Your task to perform on an android device: open app "Reddit" (install if not already installed) Image 0: 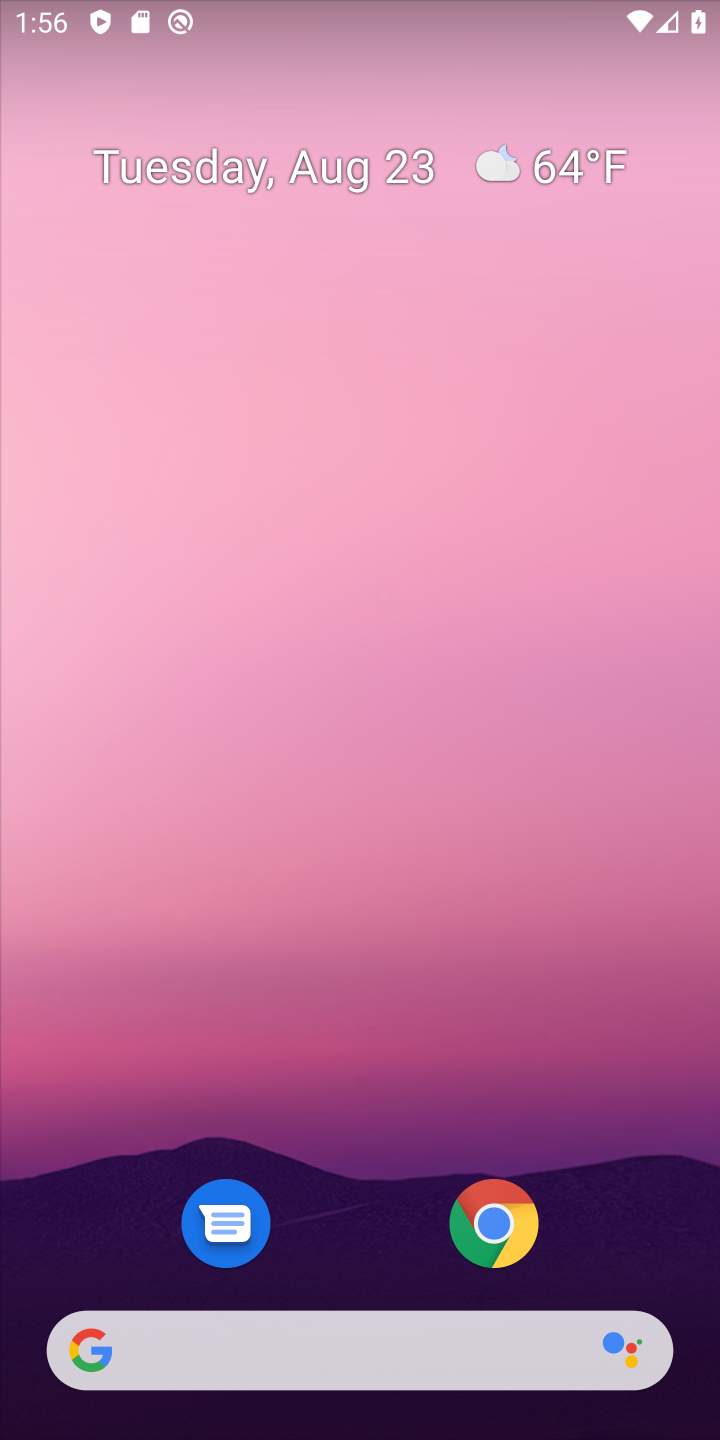
Step 0: drag from (383, 1268) to (469, 162)
Your task to perform on an android device: open app "Reddit" (install if not already installed) Image 1: 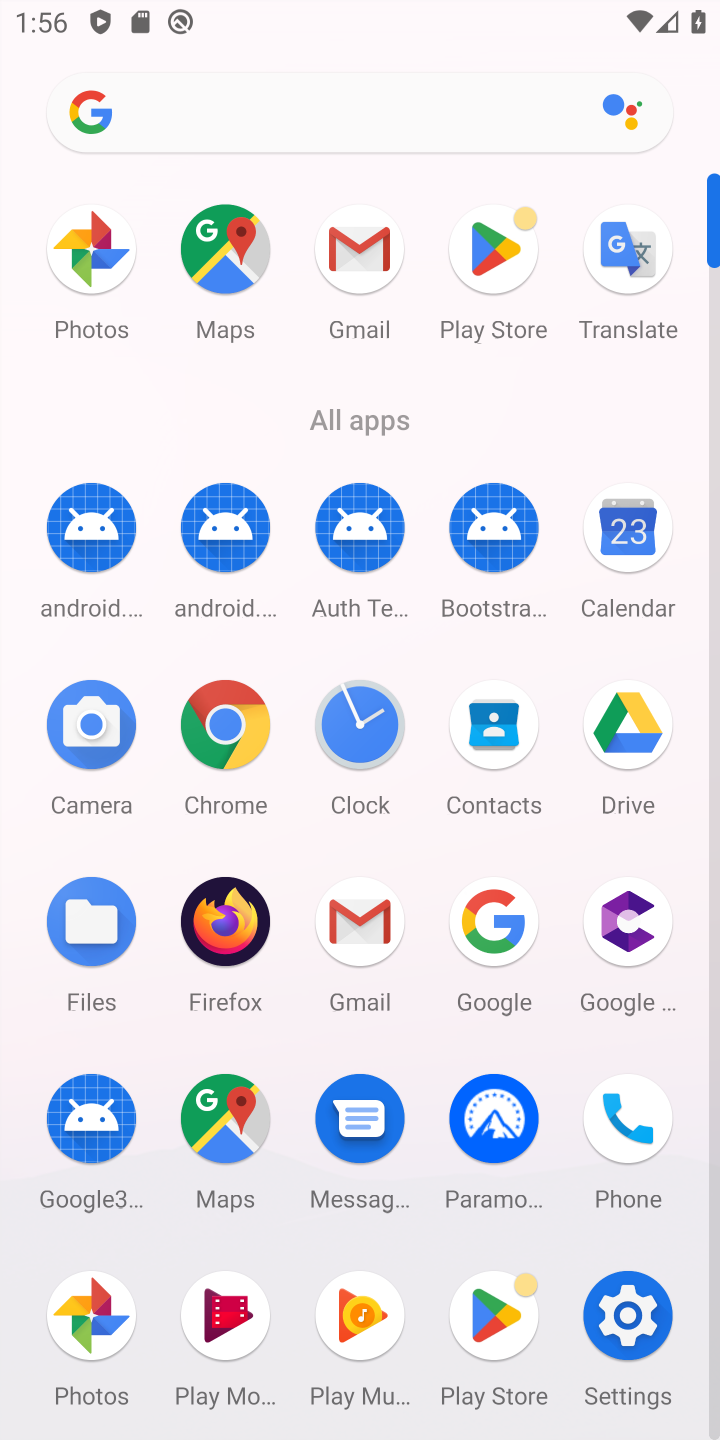
Step 1: click (500, 258)
Your task to perform on an android device: open app "Reddit" (install if not already installed) Image 2: 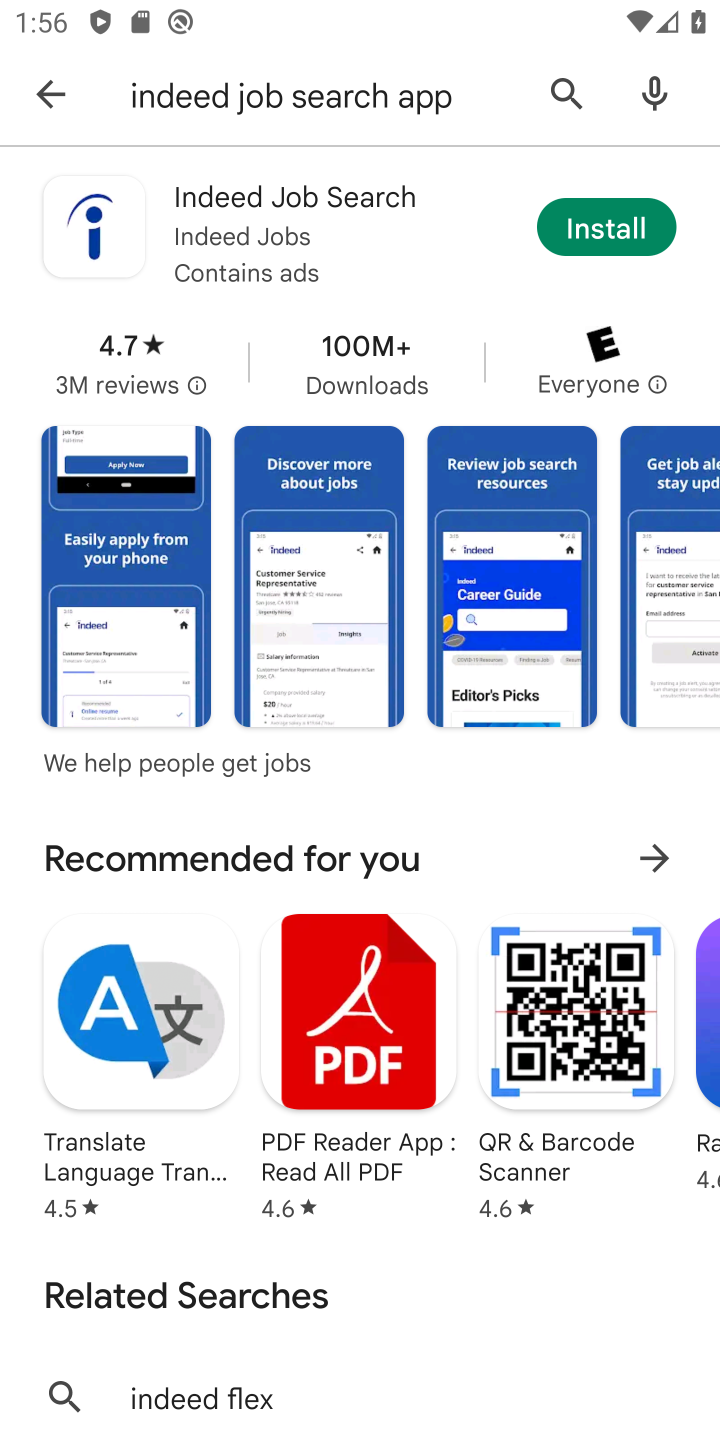
Step 2: click (576, 102)
Your task to perform on an android device: open app "Reddit" (install if not already installed) Image 3: 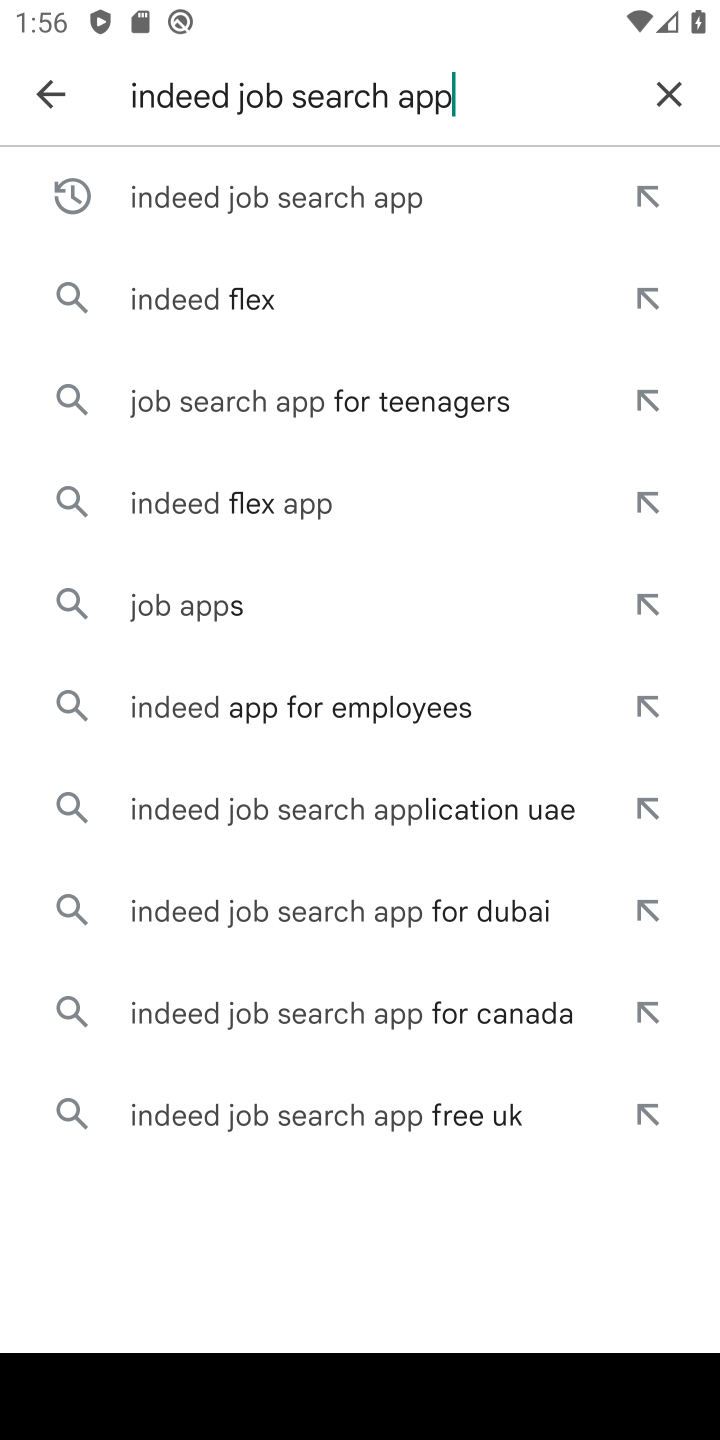
Step 3: click (670, 98)
Your task to perform on an android device: open app "Reddit" (install if not already installed) Image 4: 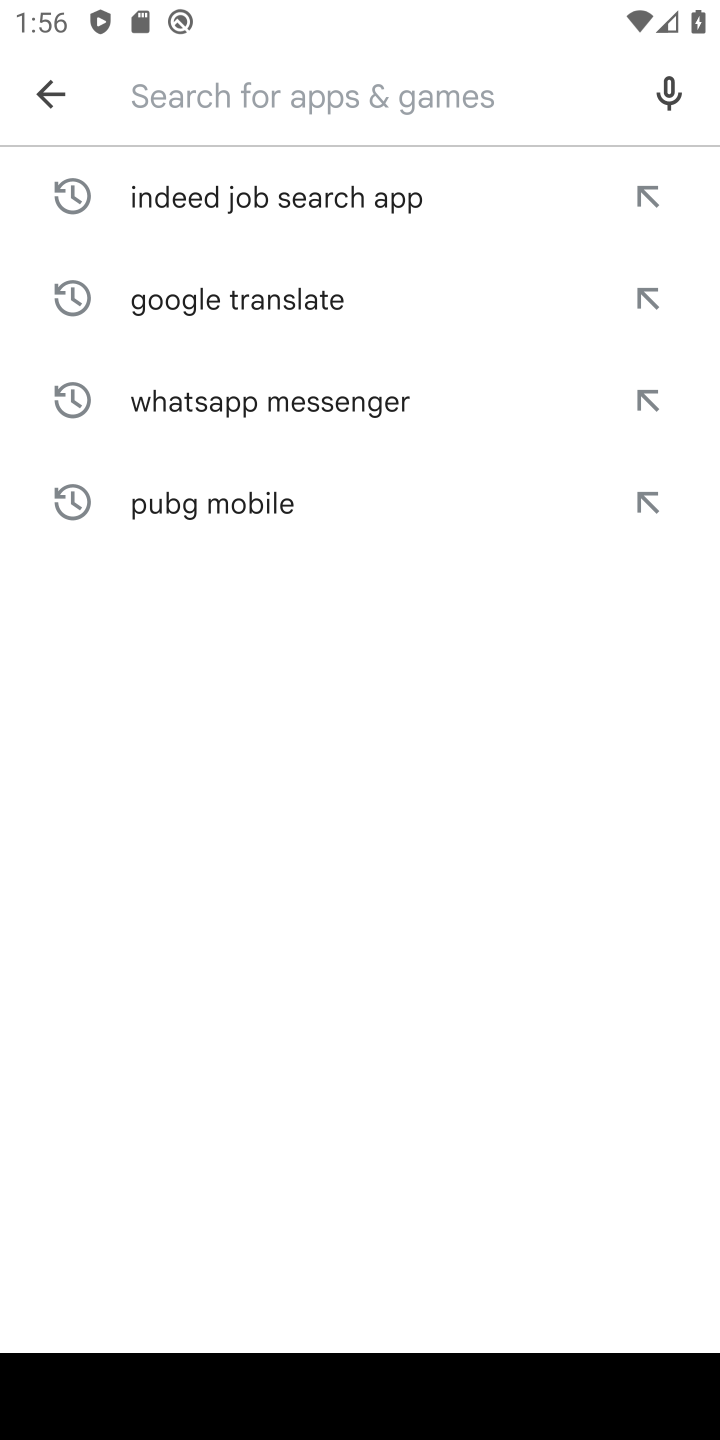
Step 4: click (252, 95)
Your task to perform on an android device: open app "Reddit" (install if not already installed) Image 5: 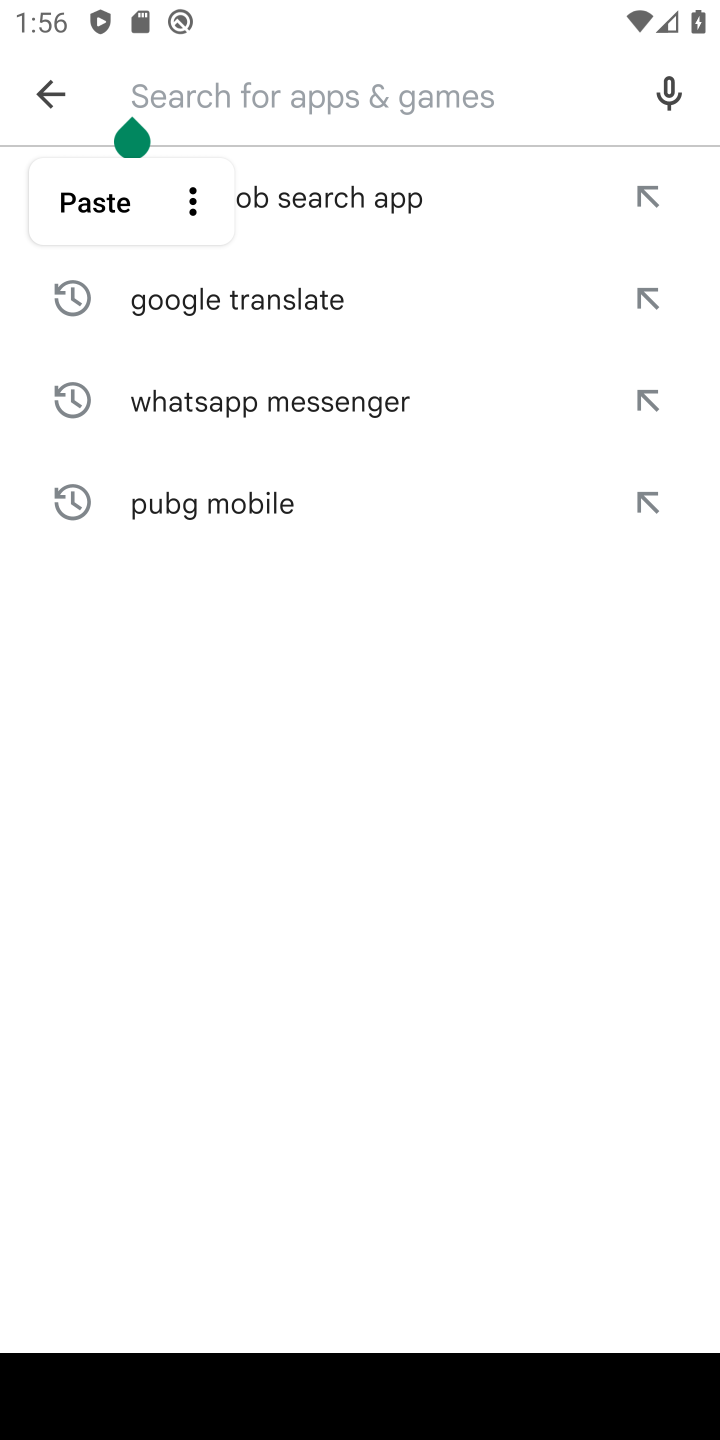
Step 5: type "Reddit"
Your task to perform on an android device: open app "Reddit" (install if not already installed) Image 6: 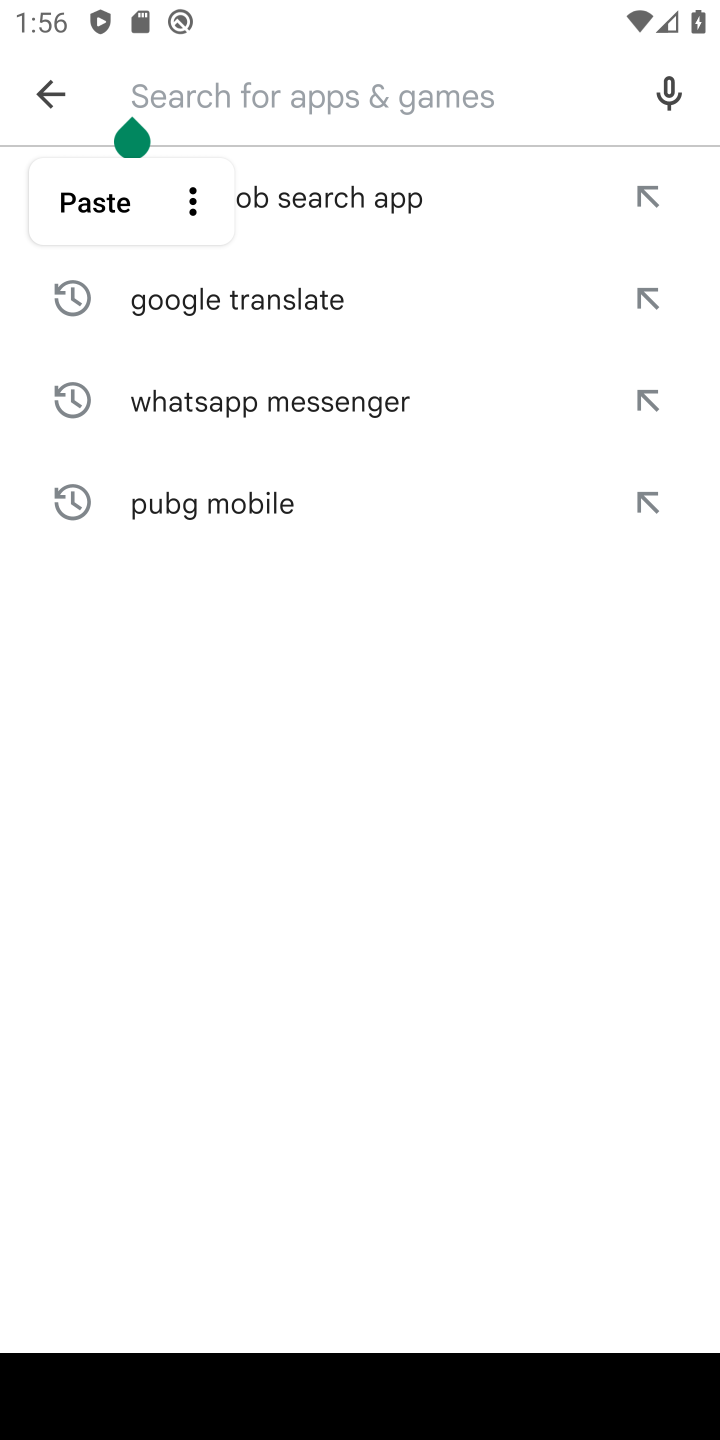
Step 6: click (376, 976)
Your task to perform on an android device: open app "Reddit" (install if not already installed) Image 7: 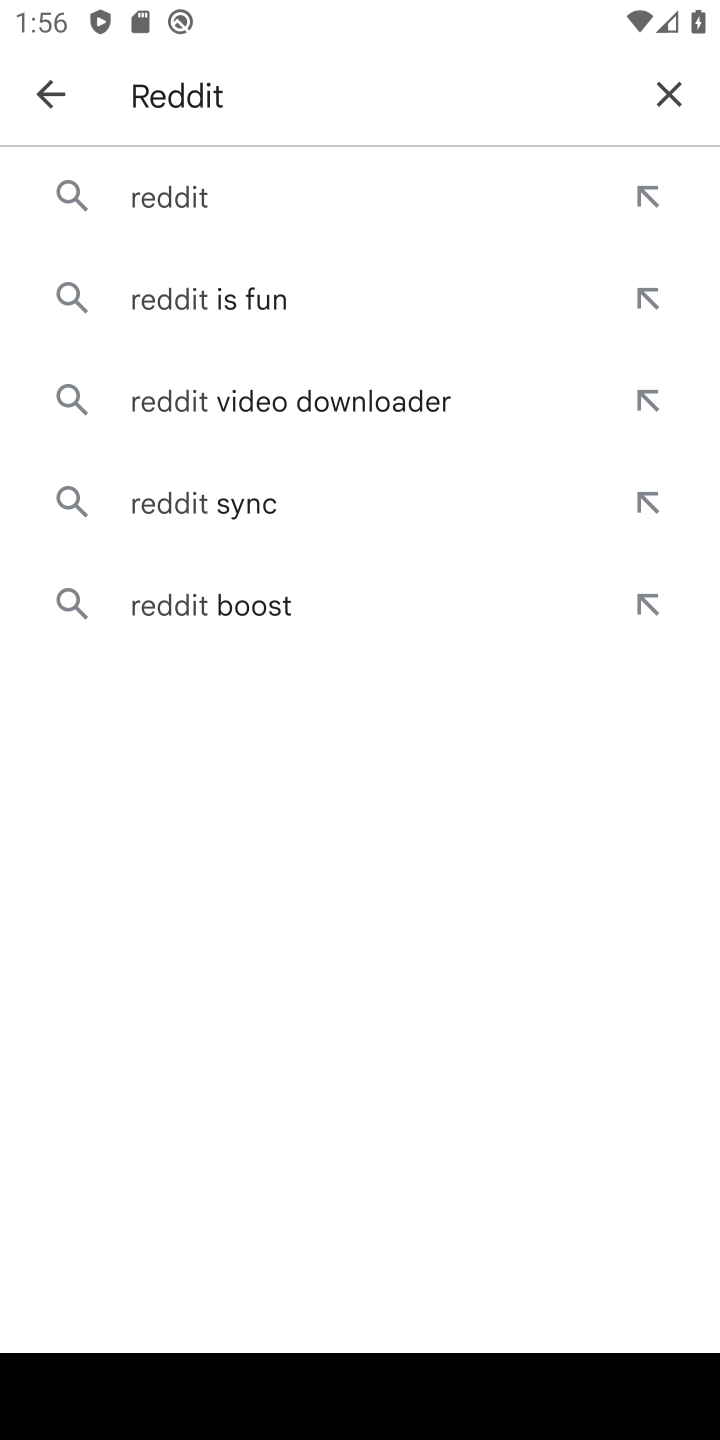
Step 7: click (195, 177)
Your task to perform on an android device: open app "Reddit" (install if not already installed) Image 8: 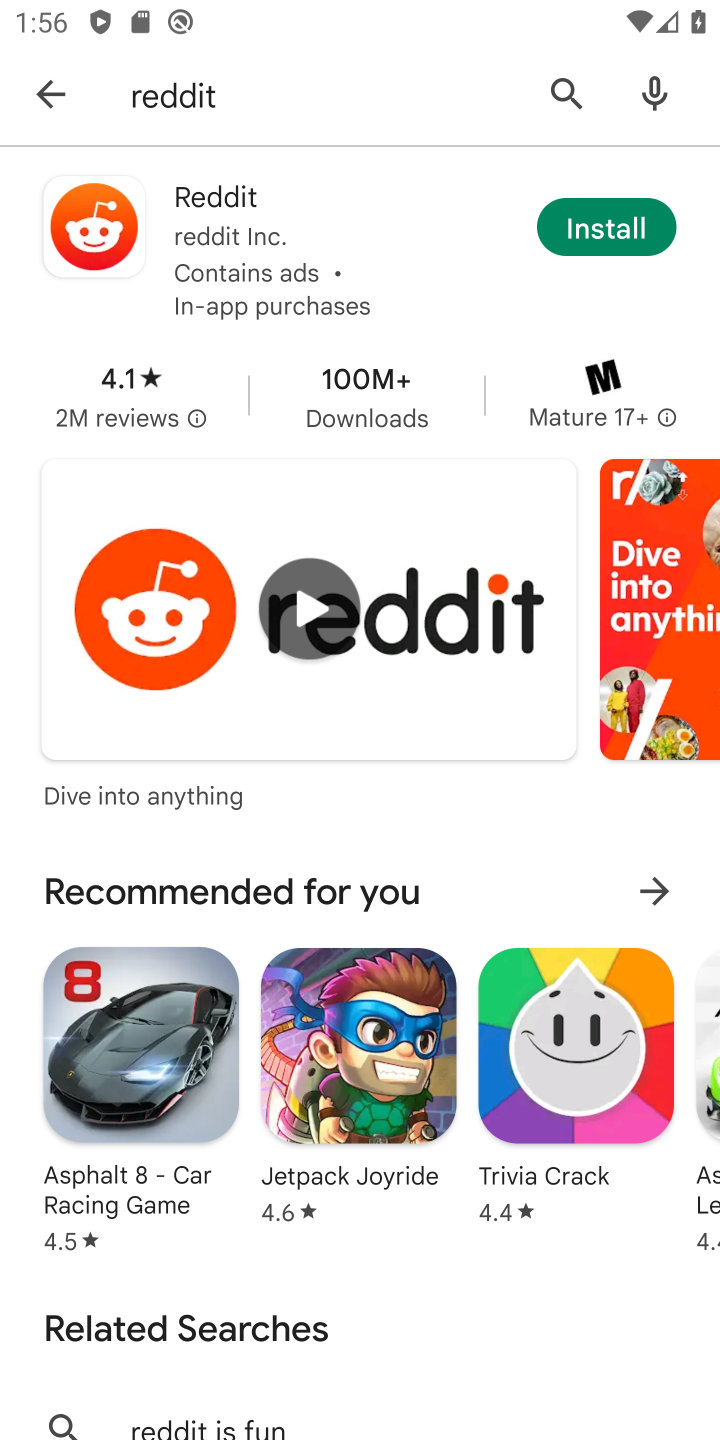
Step 8: click (619, 240)
Your task to perform on an android device: open app "Reddit" (install if not already installed) Image 9: 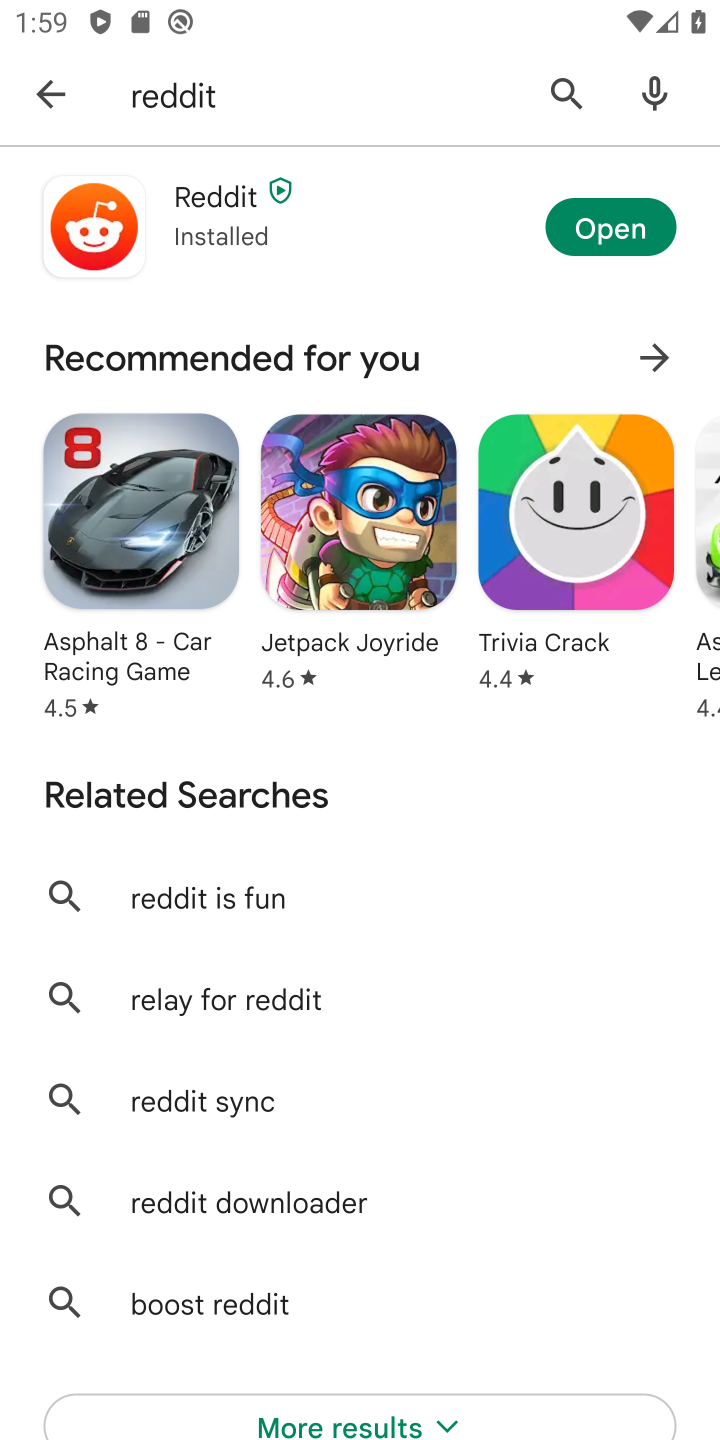
Step 9: click (596, 241)
Your task to perform on an android device: open app "Reddit" (install if not already installed) Image 10: 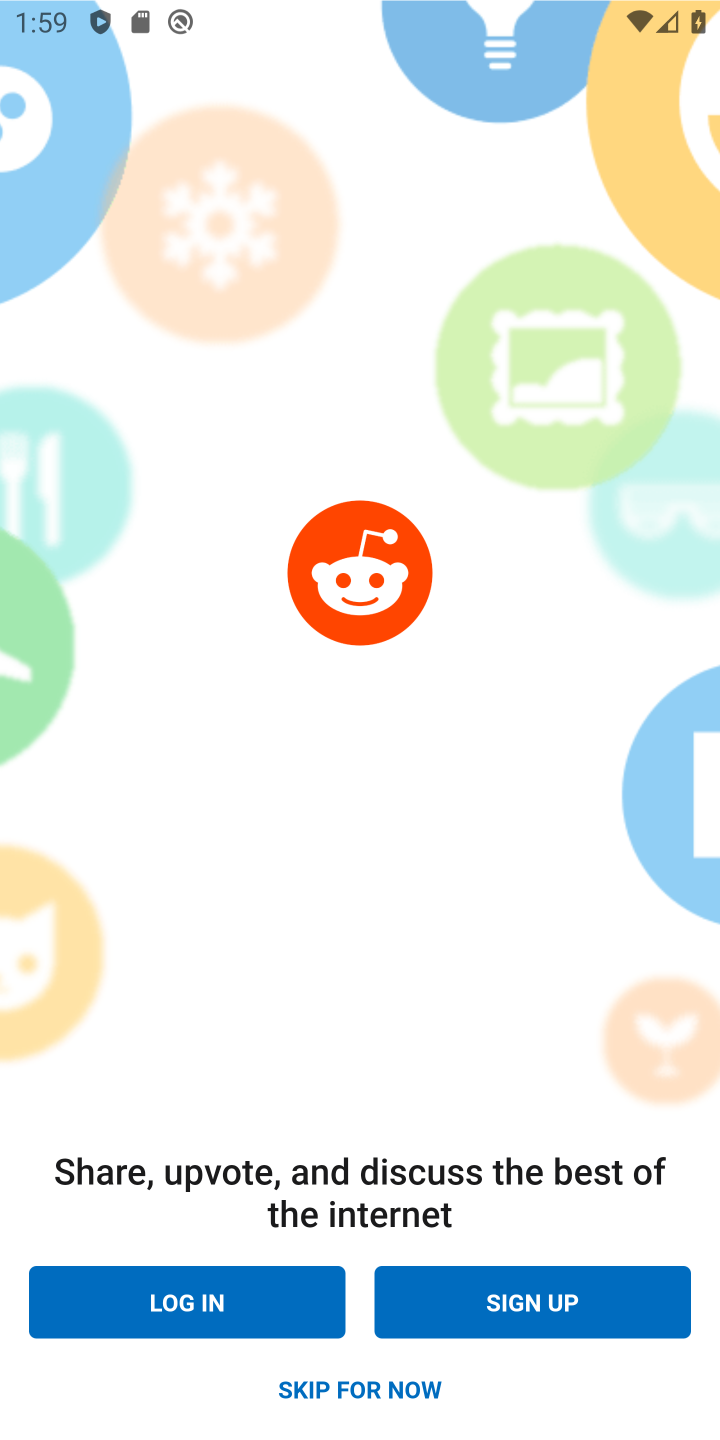
Step 10: task complete